Your task to perform on an android device: clear history in the chrome app Image 0: 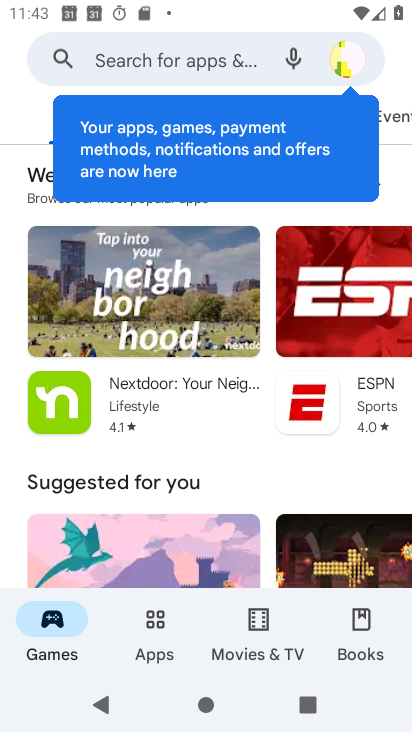
Step 0: press home button
Your task to perform on an android device: clear history in the chrome app Image 1: 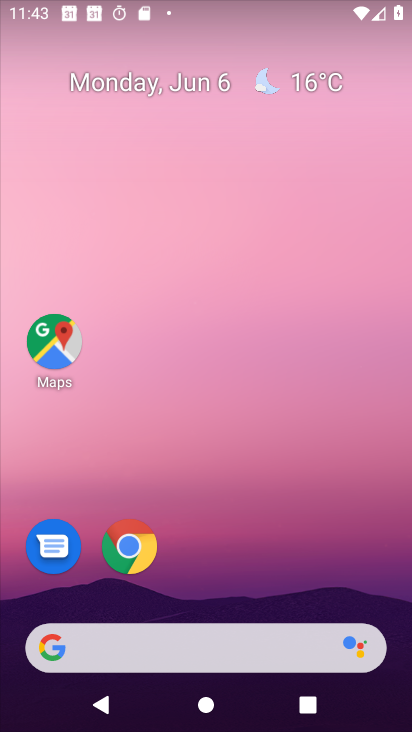
Step 1: click (131, 550)
Your task to perform on an android device: clear history in the chrome app Image 2: 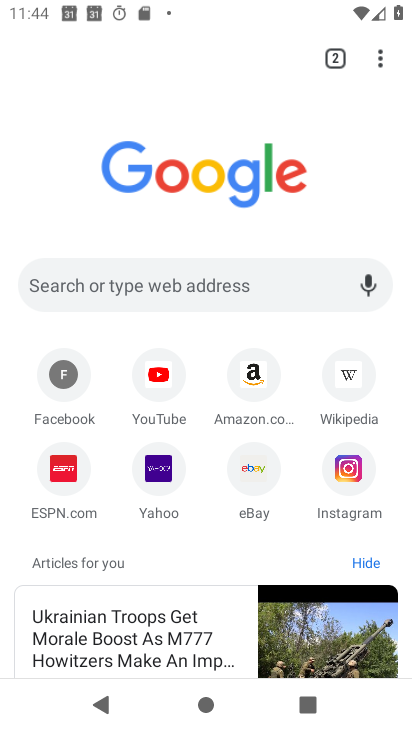
Step 2: click (381, 66)
Your task to perform on an android device: clear history in the chrome app Image 3: 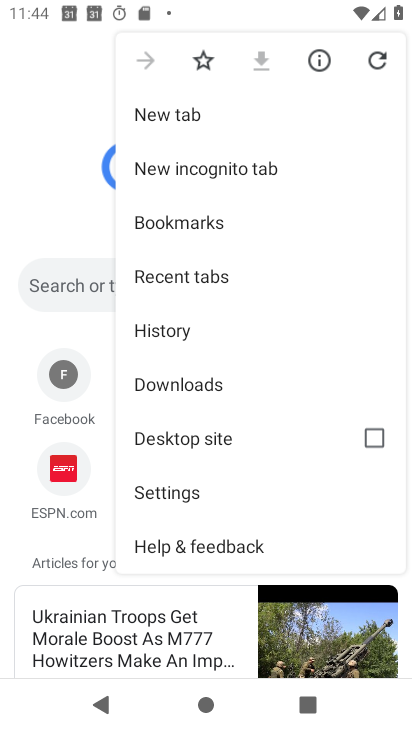
Step 3: click (177, 324)
Your task to perform on an android device: clear history in the chrome app Image 4: 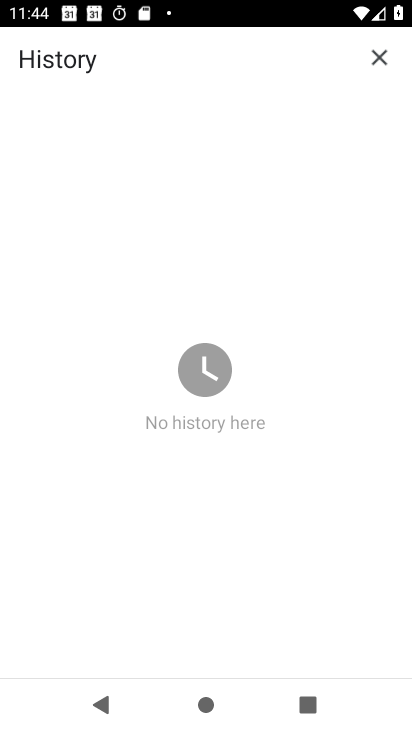
Step 4: task complete